Your task to perform on an android device: Open calendar and show me the second week of next month Image 0: 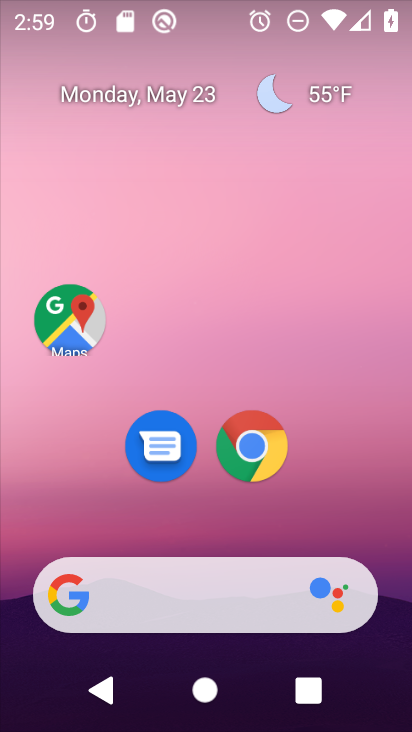
Step 0: drag from (208, 533) to (188, 214)
Your task to perform on an android device: Open calendar and show me the second week of next month Image 1: 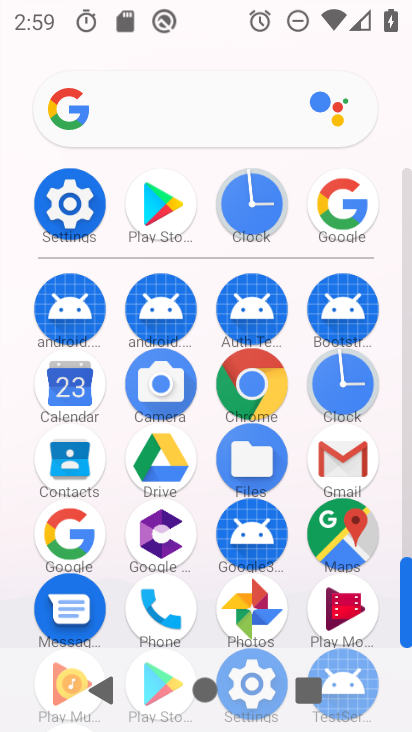
Step 1: drag from (305, 458) to (291, 362)
Your task to perform on an android device: Open calendar and show me the second week of next month Image 2: 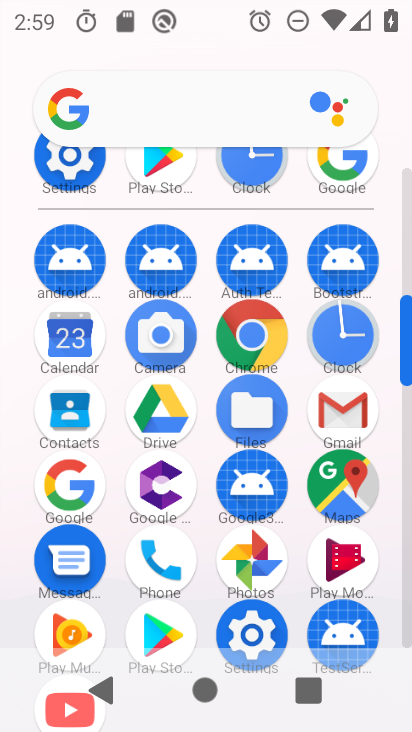
Step 2: click (49, 344)
Your task to perform on an android device: Open calendar and show me the second week of next month Image 3: 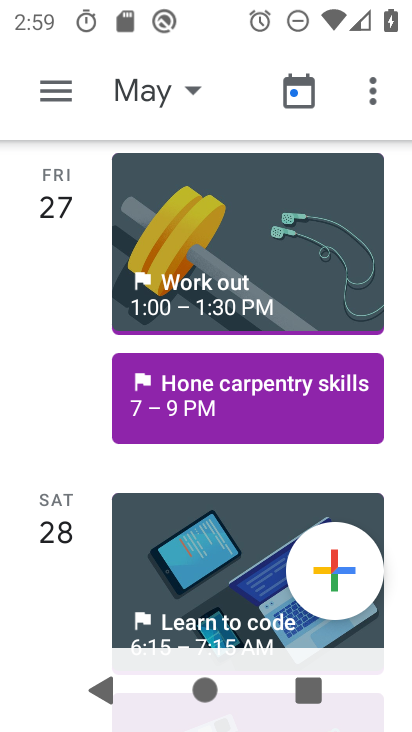
Step 3: click (182, 98)
Your task to perform on an android device: Open calendar and show me the second week of next month Image 4: 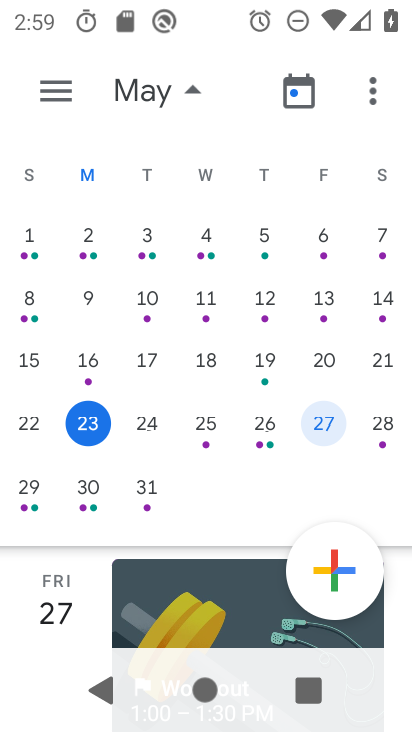
Step 4: drag from (336, 274) to (52, 298)
Your task to perform on an android device: Open calendar and show me the second week of next month Image 5: 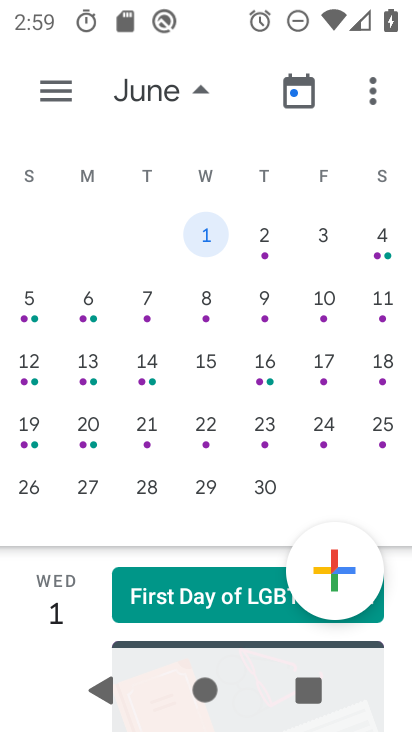
Step 5: click (38, 311)
Your task to perform on an android device: Open calendar and show me the second week of next month Image 6: 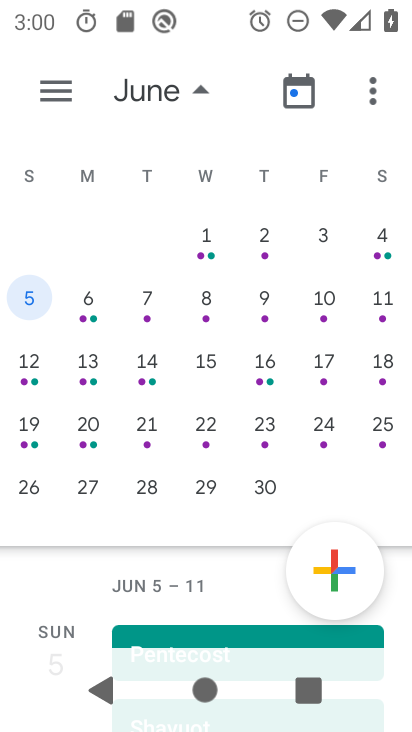
Step 6: task complete